Your task to perform on an android device: open app "Facebook Messenger" (install if not already installed) Image 0: 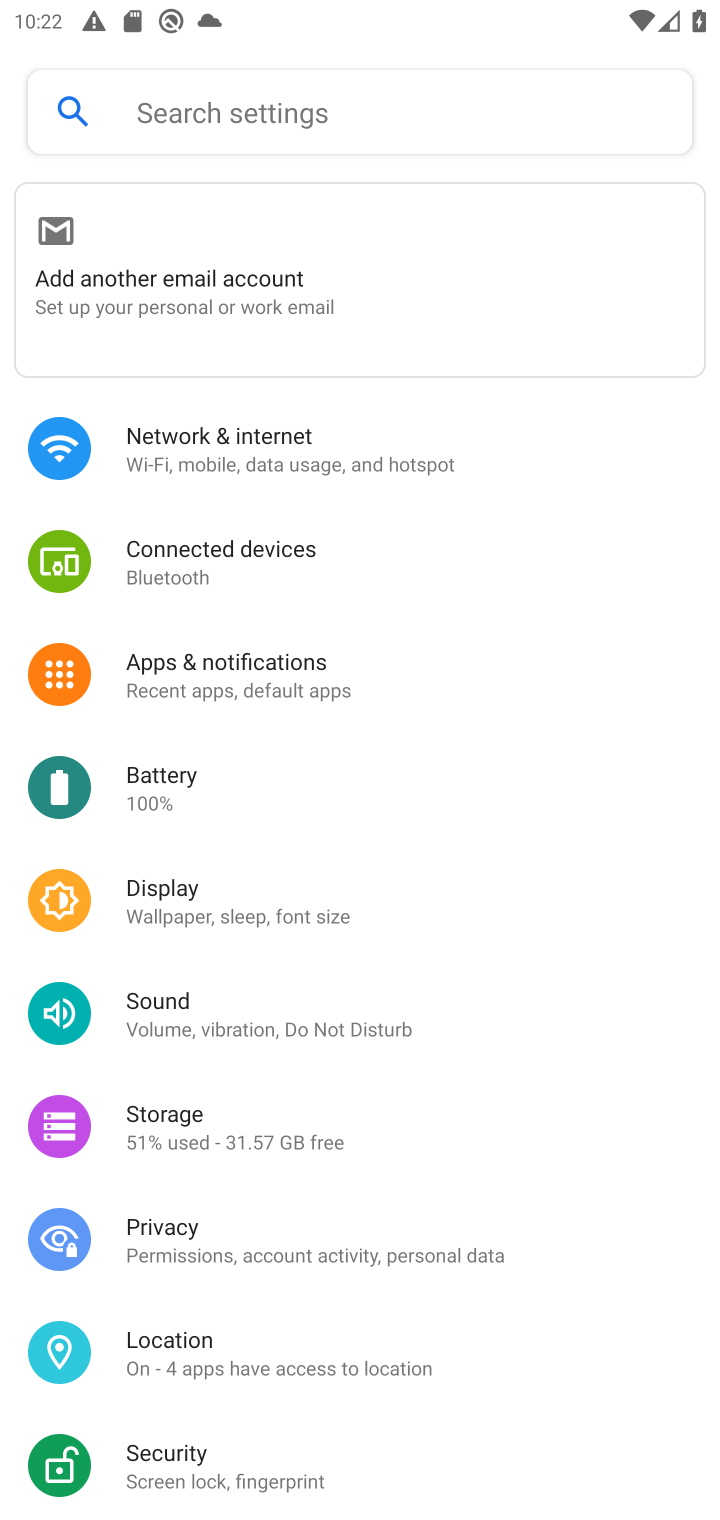
Step 0: press home button
Your task to perform on an android device: open app "Facebook Messenger" (install if not already installed) Image 1: 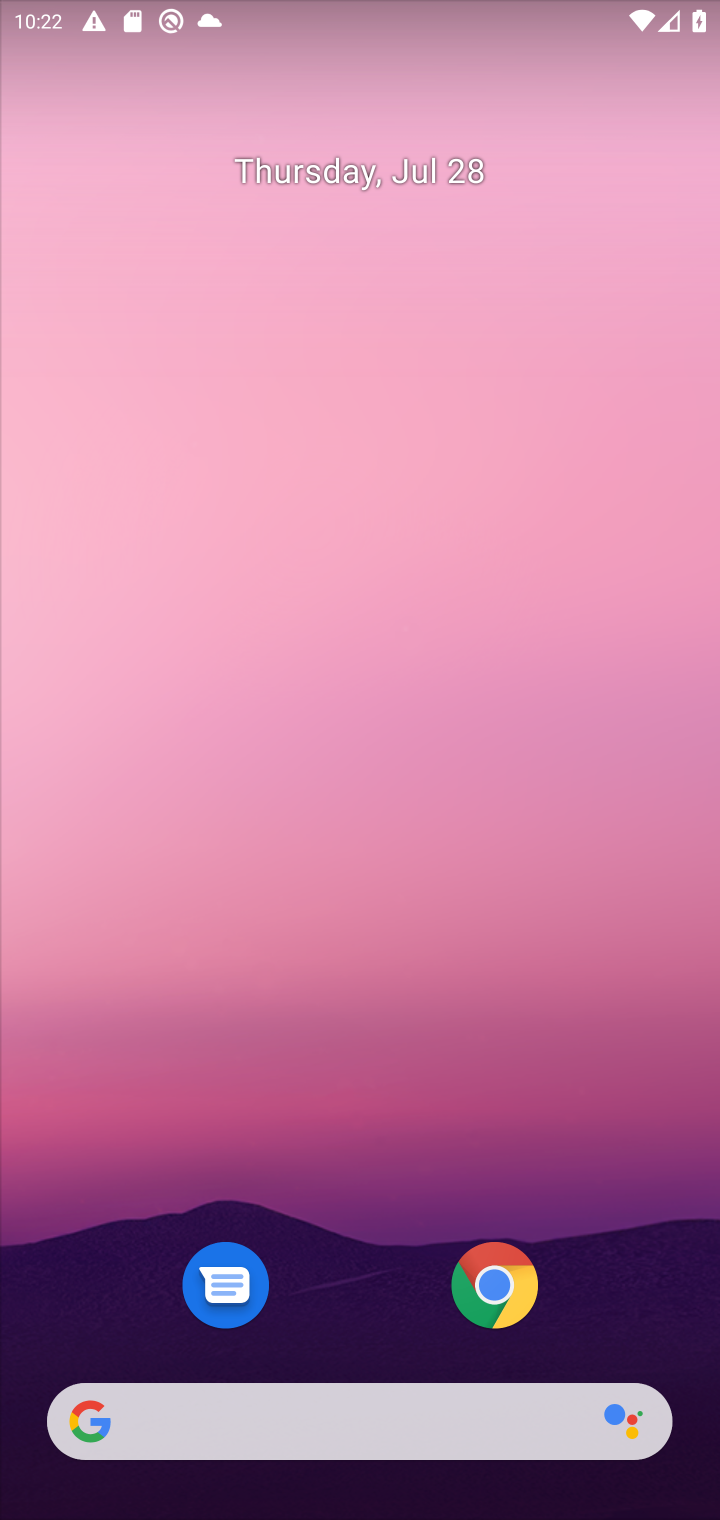
Step 1: drag from (322, 1111) to (169, 50)
Your task to perform on an android device: open app "Facebook Messenger" (install if not already installed) Image 2: 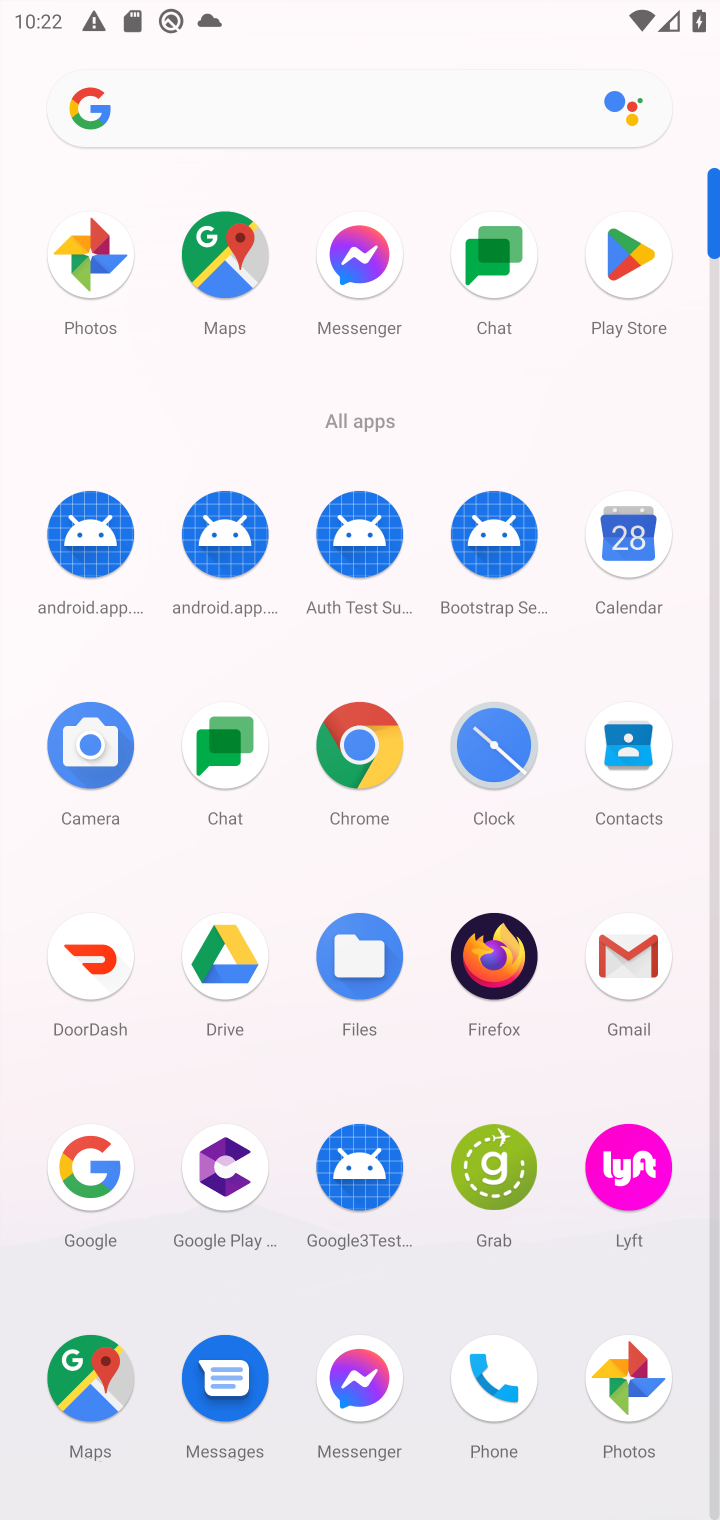
Step 2: click (626, 246)
Your task to perform on an android device: open app "Facebook Messenger" (install if not already installed) Image 3: 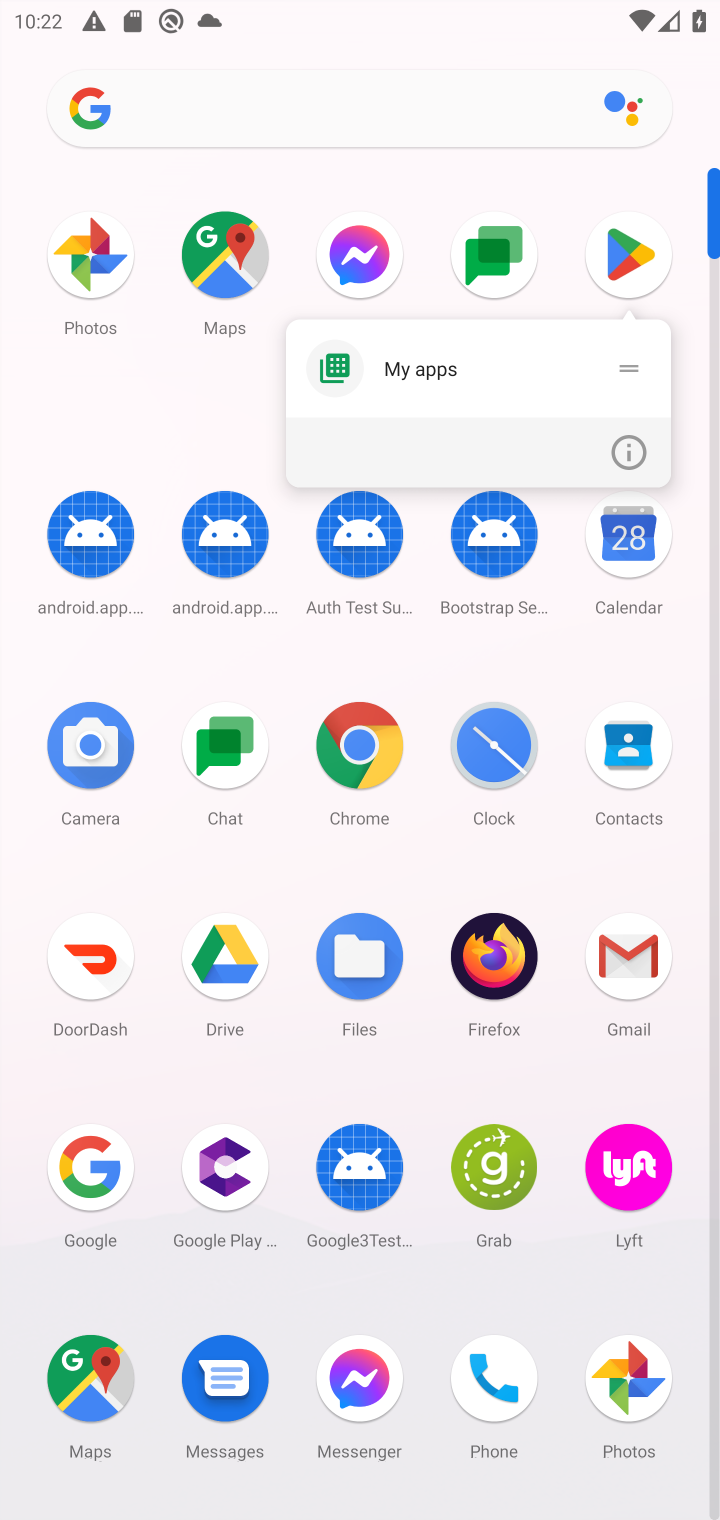
Step 3: click (646, 258)
Your task to perform on an android device: open app "Facebook Messenger" (install if not already installed) Image 4: 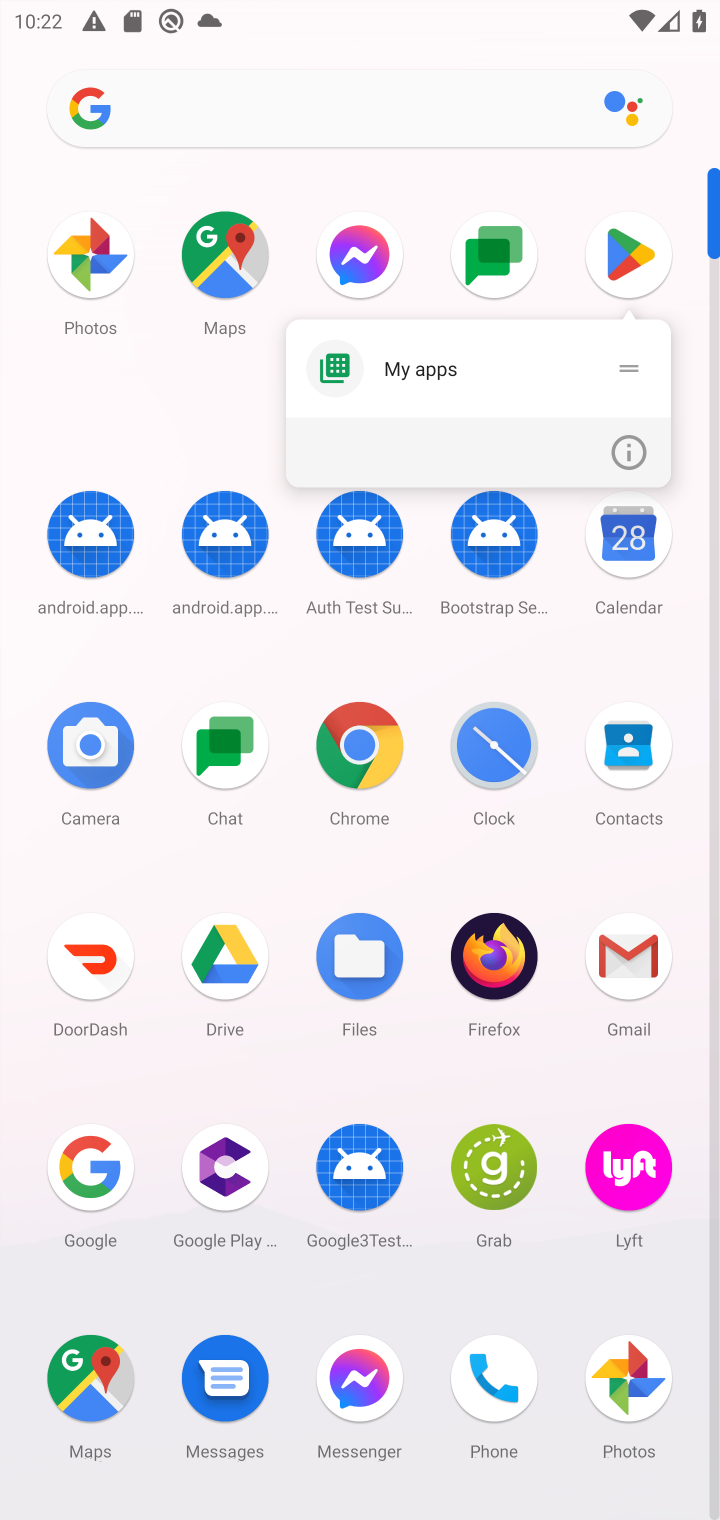
Step 4: click (192, 426)
Your task to perform on an android device: open app "Facebook Messenger" (install if not already installed) Image 5: 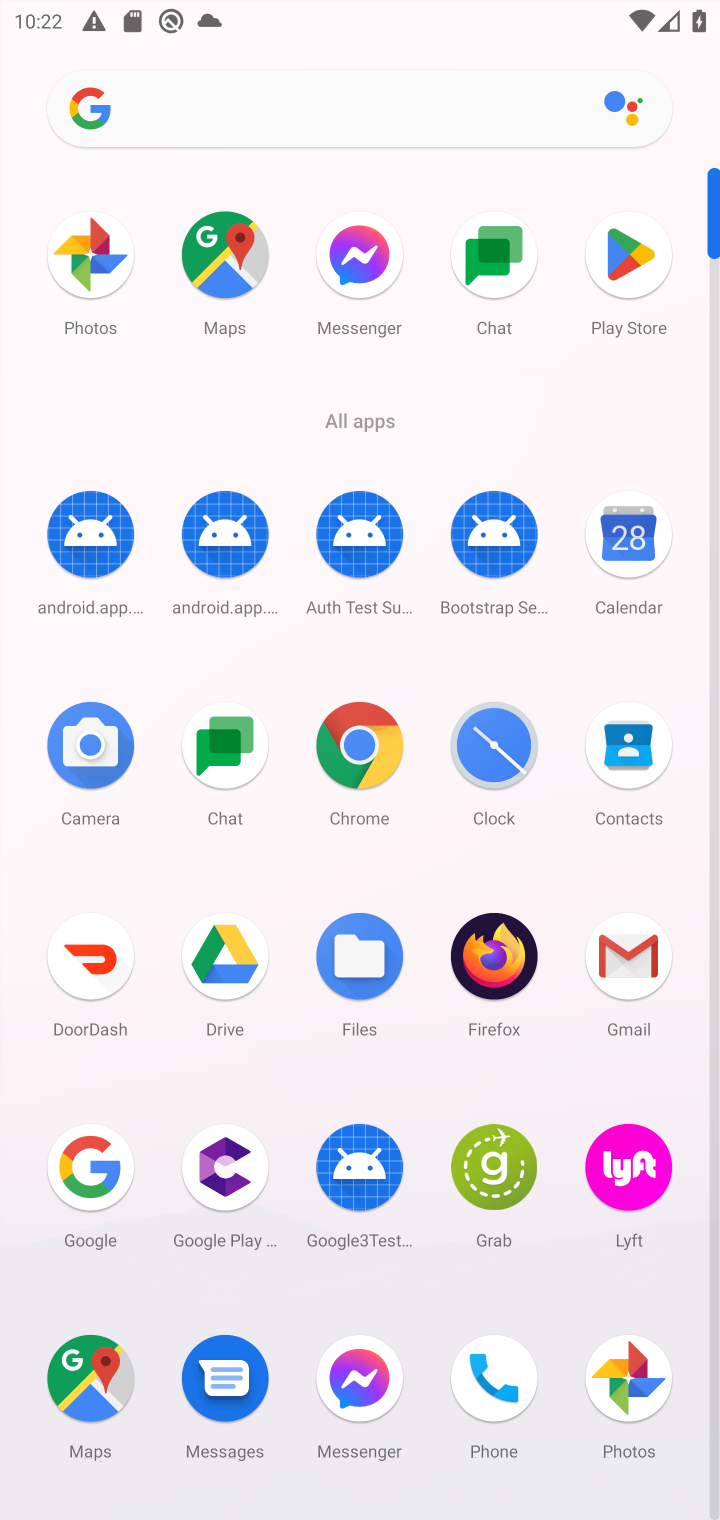
Step 5: click (630, 254)
Your task to perform on an android device: open app "Facebook Messenger" (install if not already installed) Image 6: 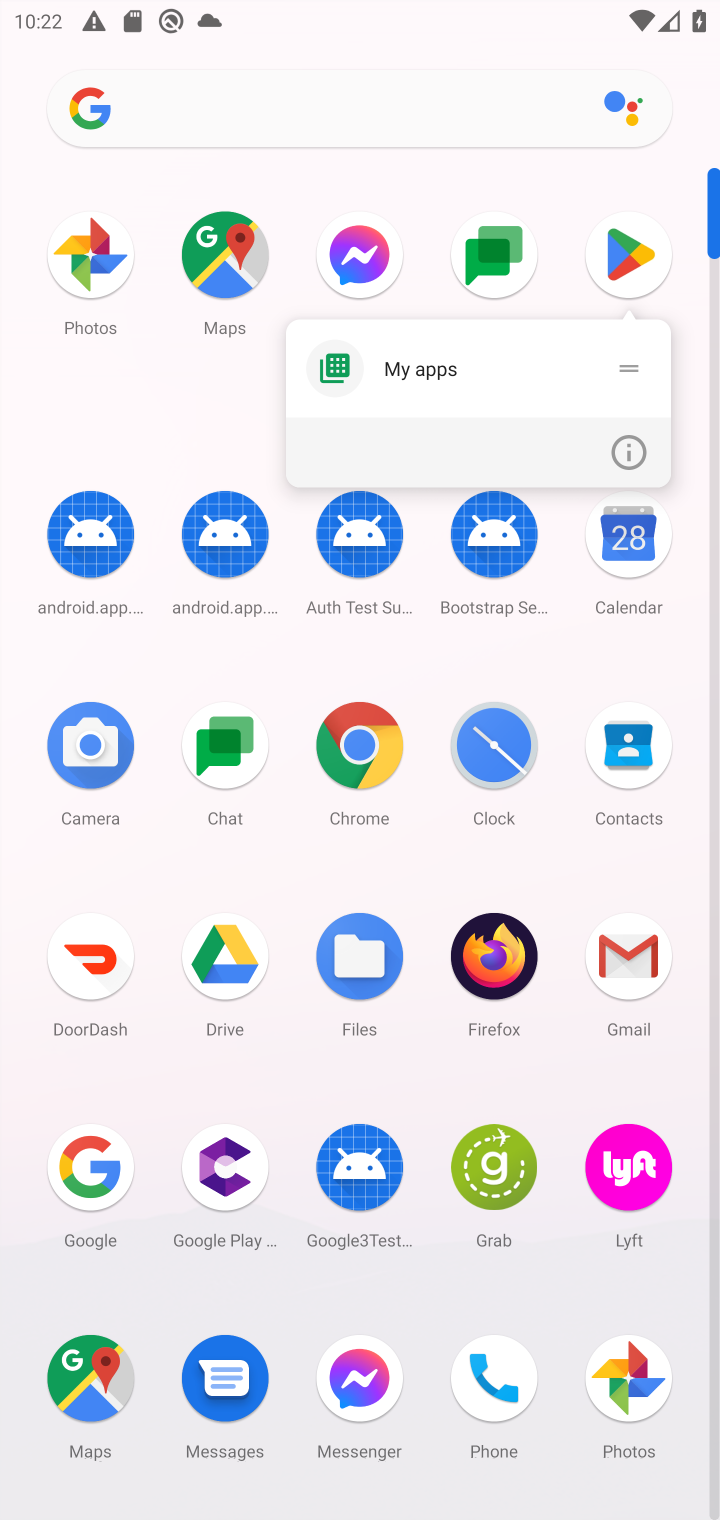
Step 6: click (245, 395)
Your task to perform on an android device: open app "Facebook Messenger" (install if not already installed) Image 7: 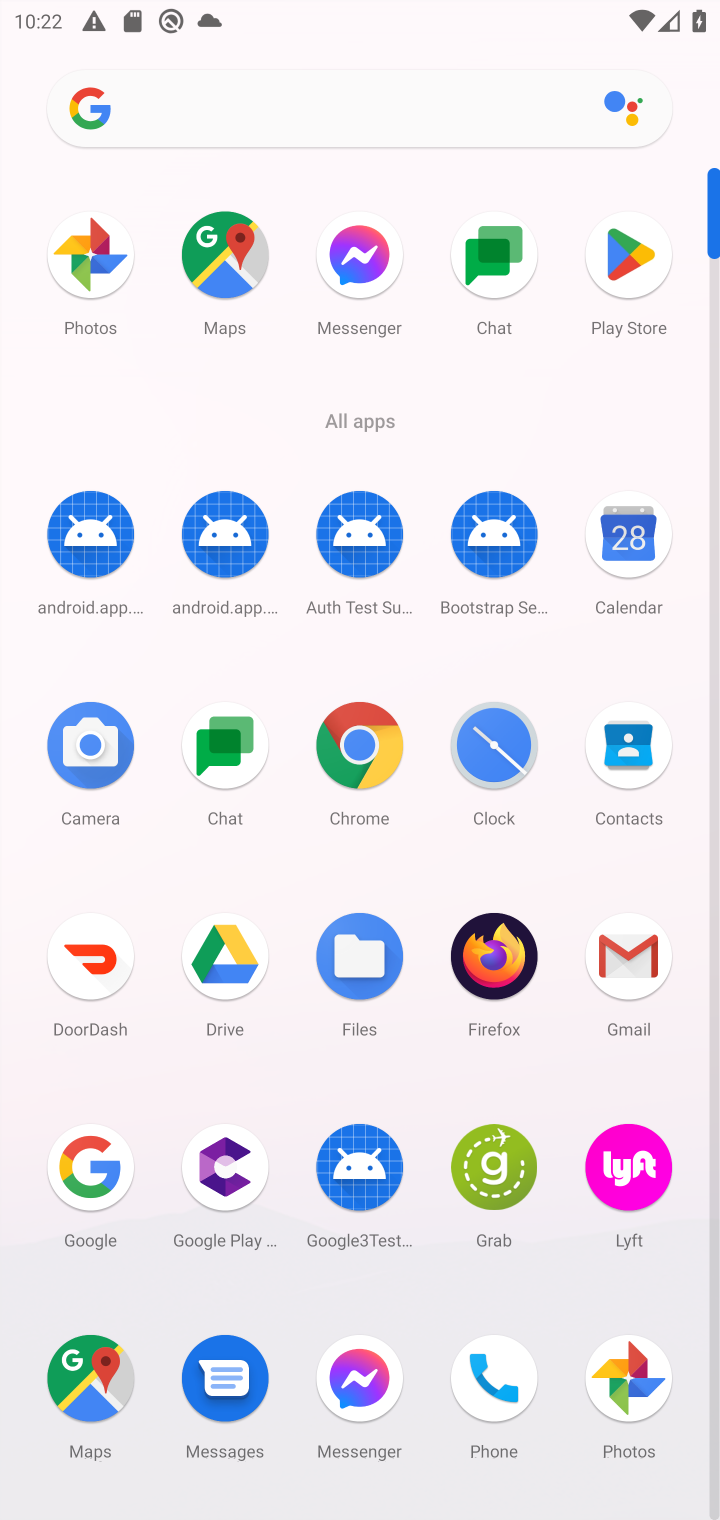
Step 7: click (625, 270)
Your task to perform on an android device: open app "Facebook Messenger" (install if not already installed) Image 8: 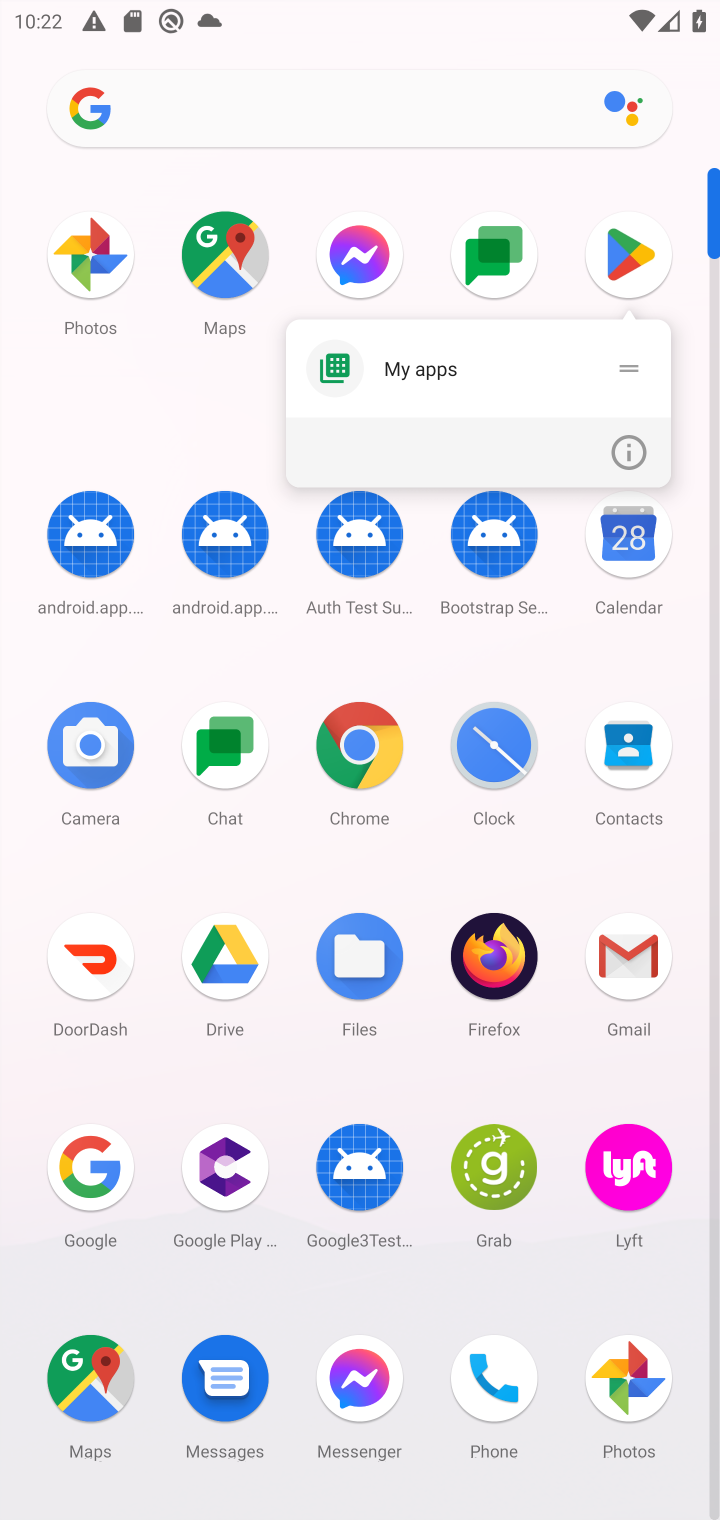
Step 8: click (631, 263)
Your task to perform on an android device: open app "Facebook Messenger" (install if not already installed) Image 9: 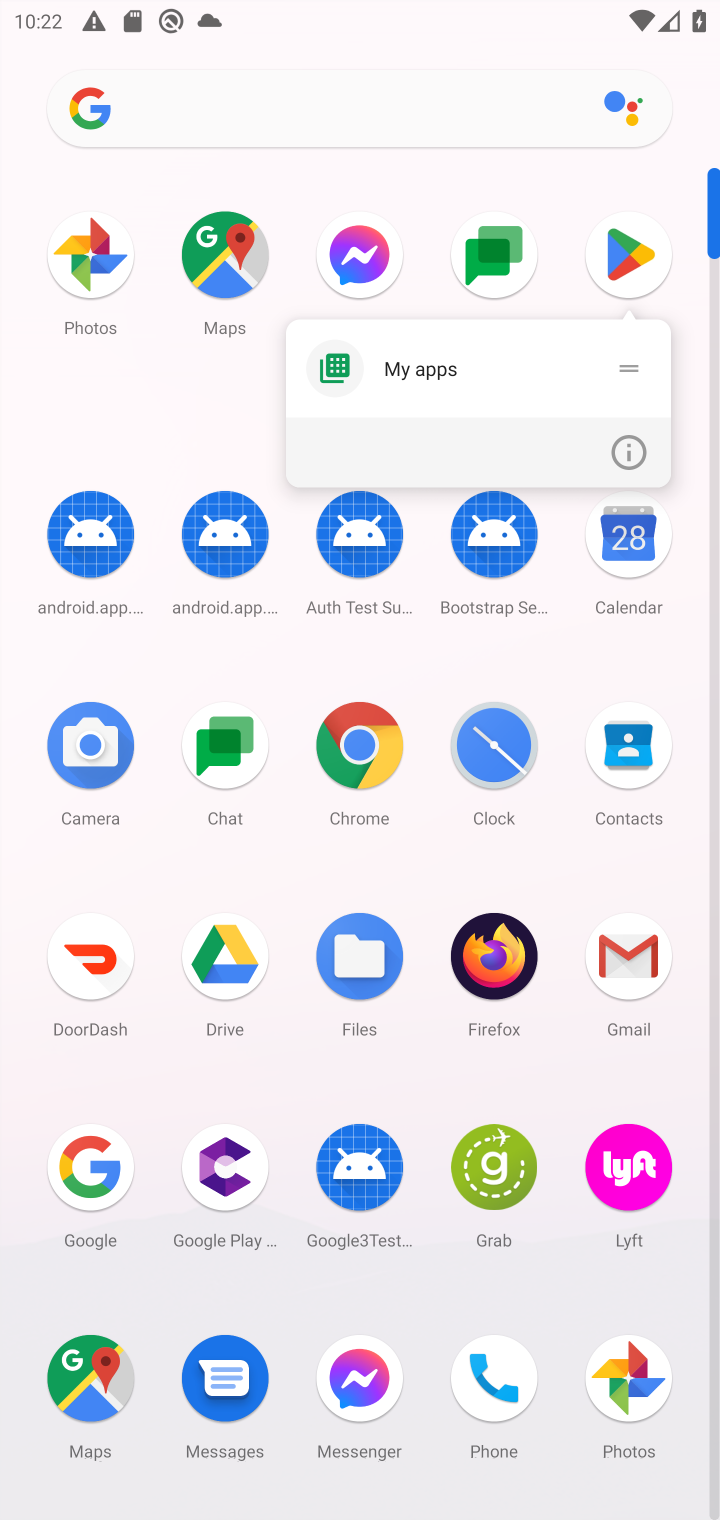
Step 9: click (534, 811)
Your task to perform on an android device: open app "Facebook Messenger" (install if not already installed) Image 10: 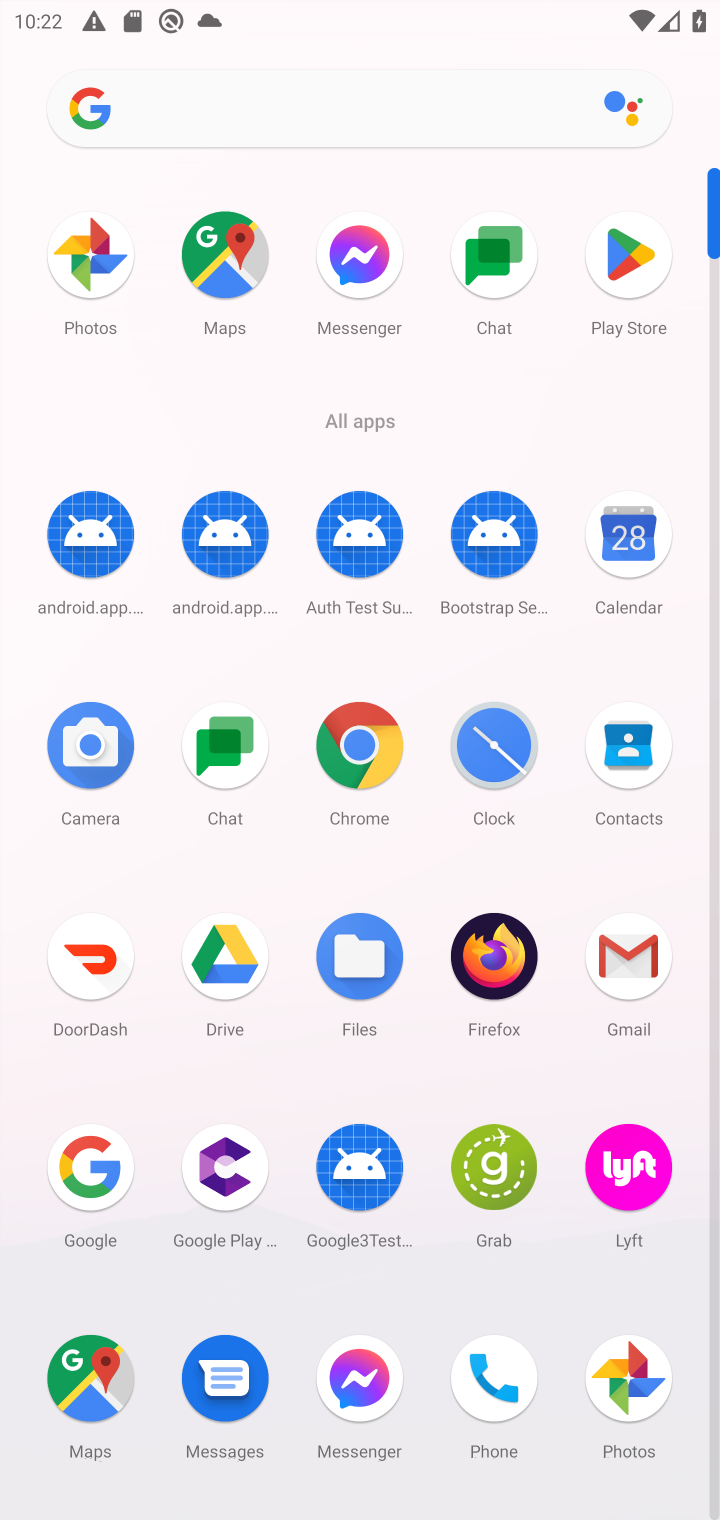
Step 10: drag from (553, 864) to (449, 230)
Your task to perform on an android device: open app "Facebook Messenger" (install if not already installed) Image 11: 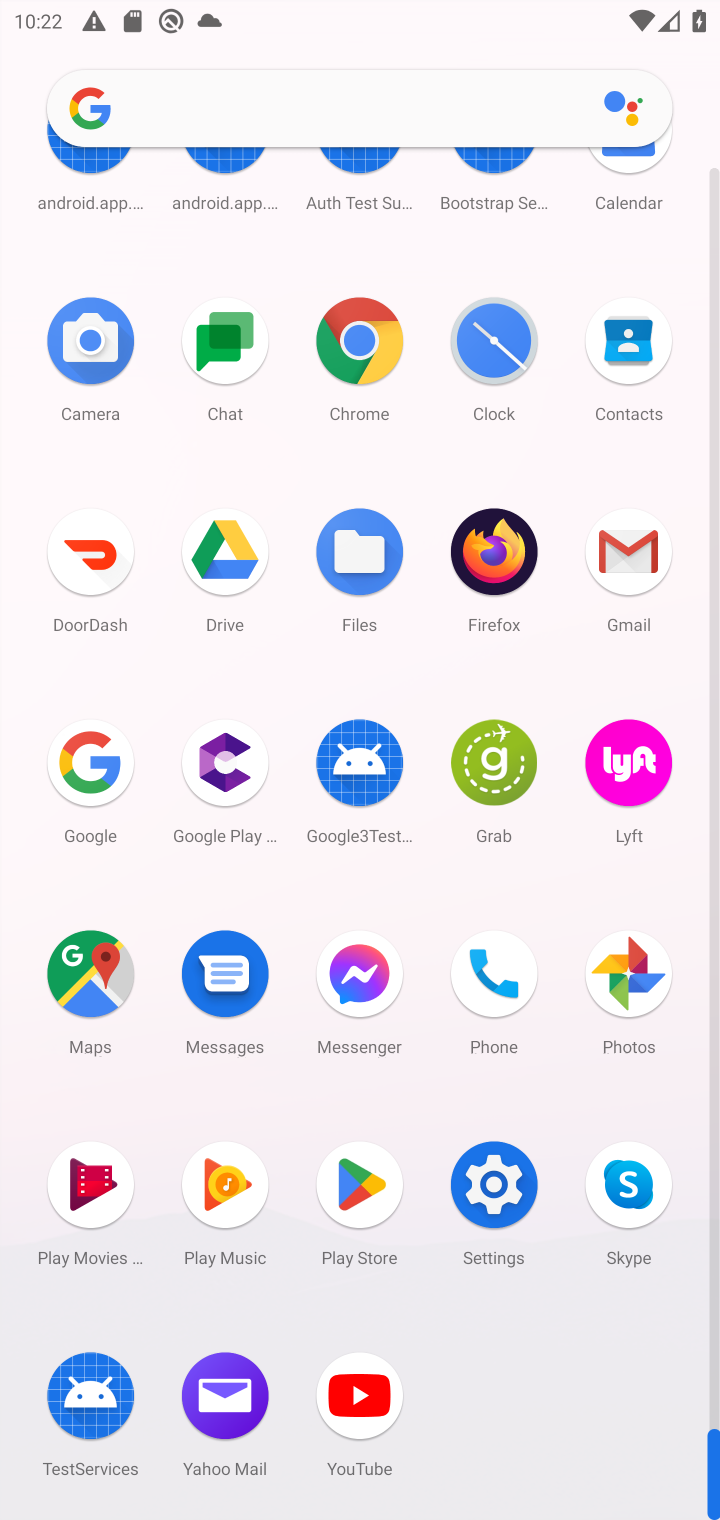
Step 11: click (357, 1190)
Your task to perform on an android device: open app "Facebook Messenger" (install if not already installed) Image 12: 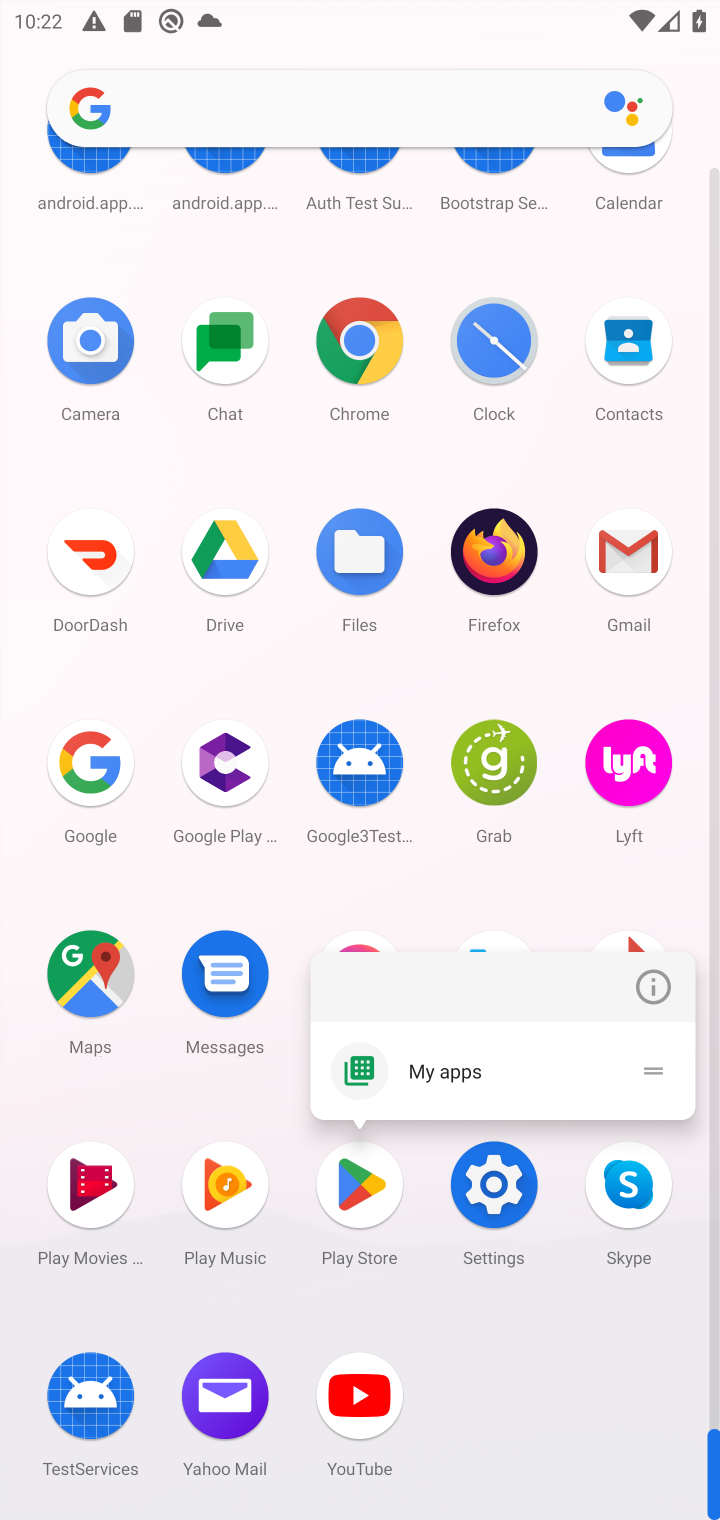
Step 12: click (359, 1185)
Your task to perform on an android device: open app "Facebook Messenger" (install if not already installed) Image 13: 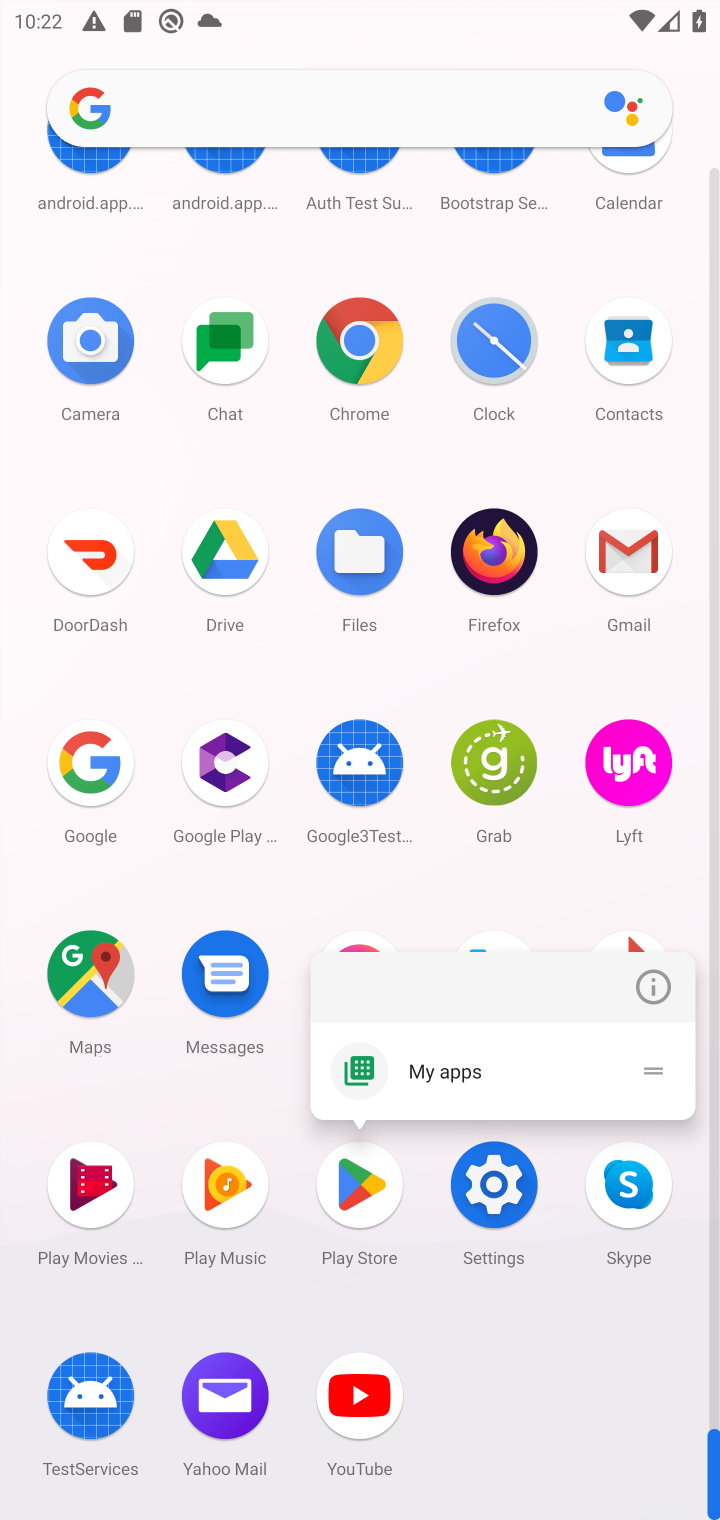
Step 13: click (481, 1453)
Your task to perform on an android device: open app "Facebook Messenger" (install if not already installed) Image 14: 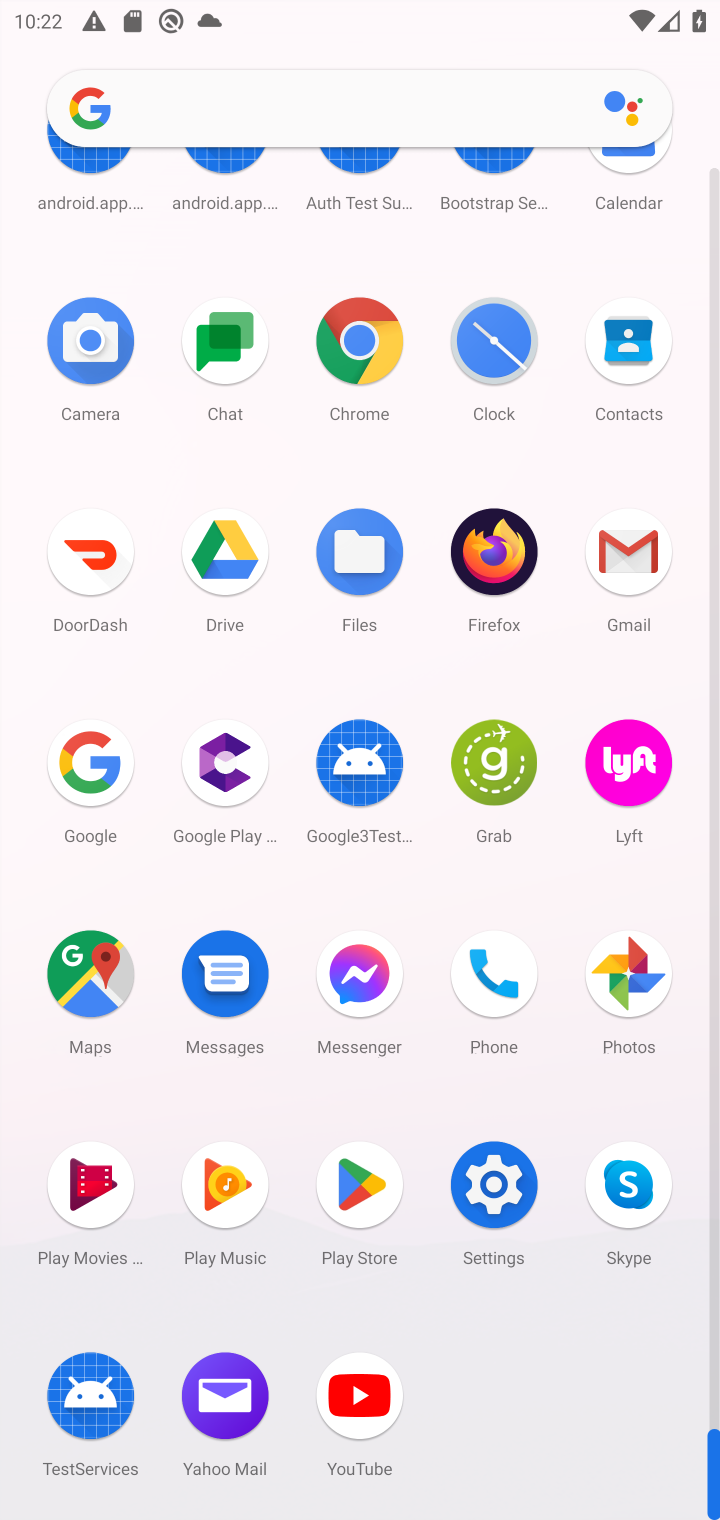
Step 14: click (355, 1178)
Your task to perform on an android device: open app "Facebook Messenger" (install if not already installed) Image 15: 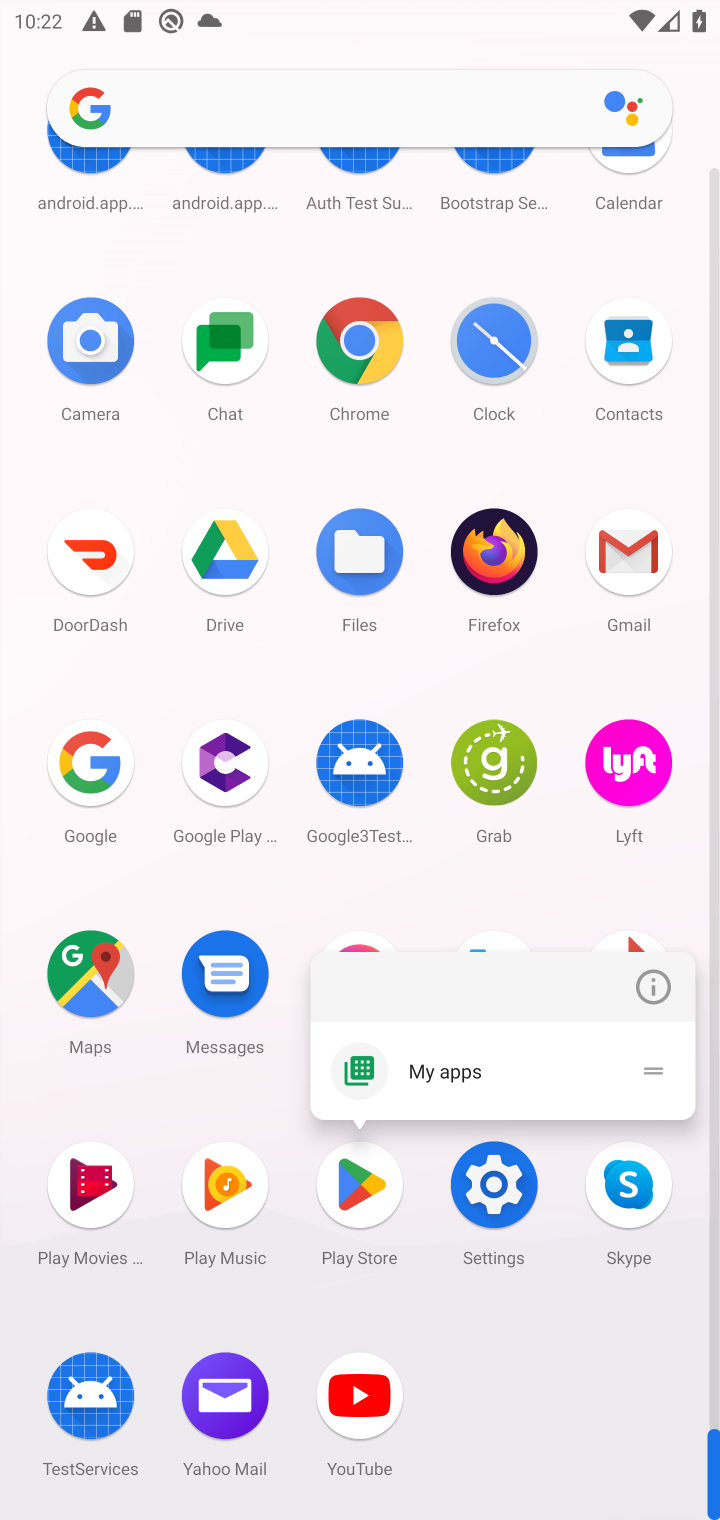
Step 15: click (355, 1178)
Your task to perform on an android device: open app "Facebook Messenger" (install if not already installed) Image 16: 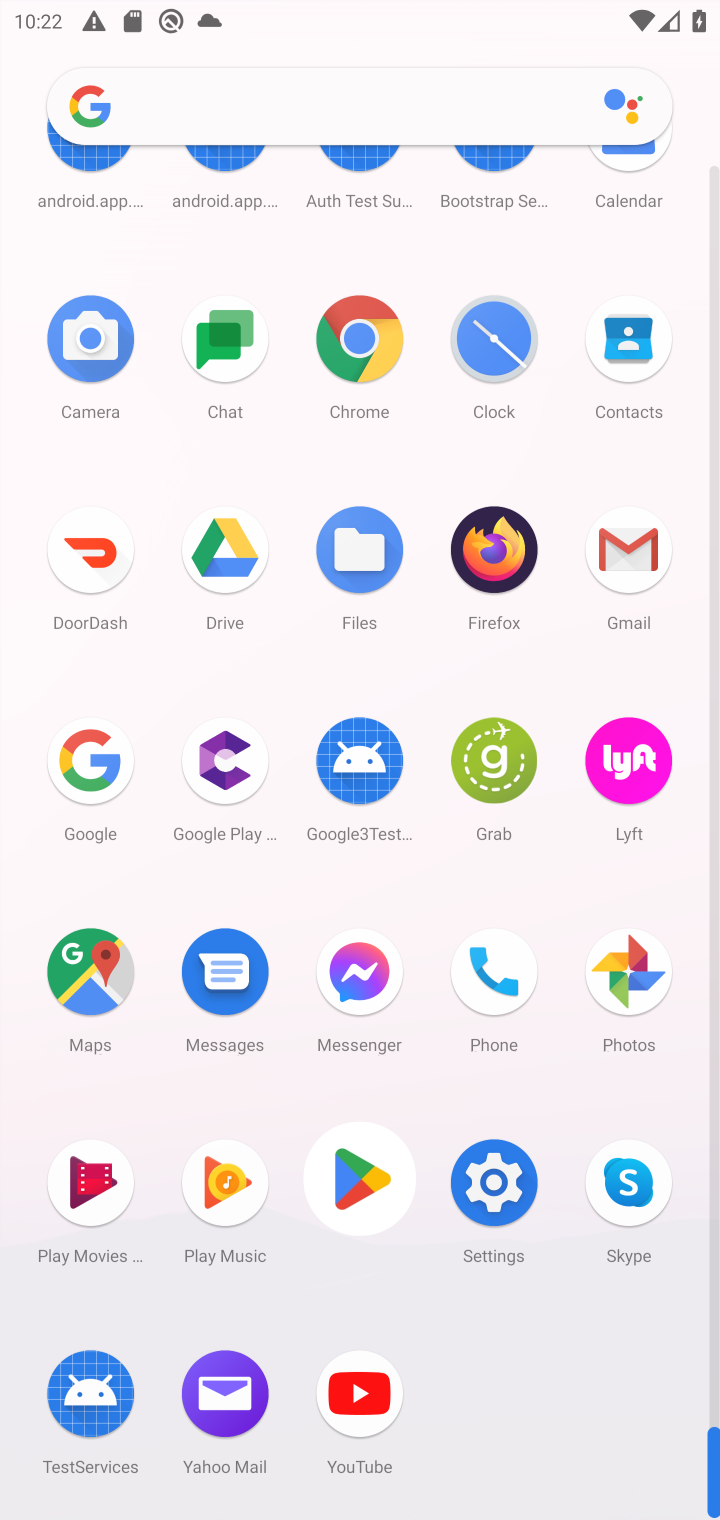
Step 16: click (354, 1172)
Your task to perform on an android device: open app "Facebook Messenger" (install if not already installed) Image 17: 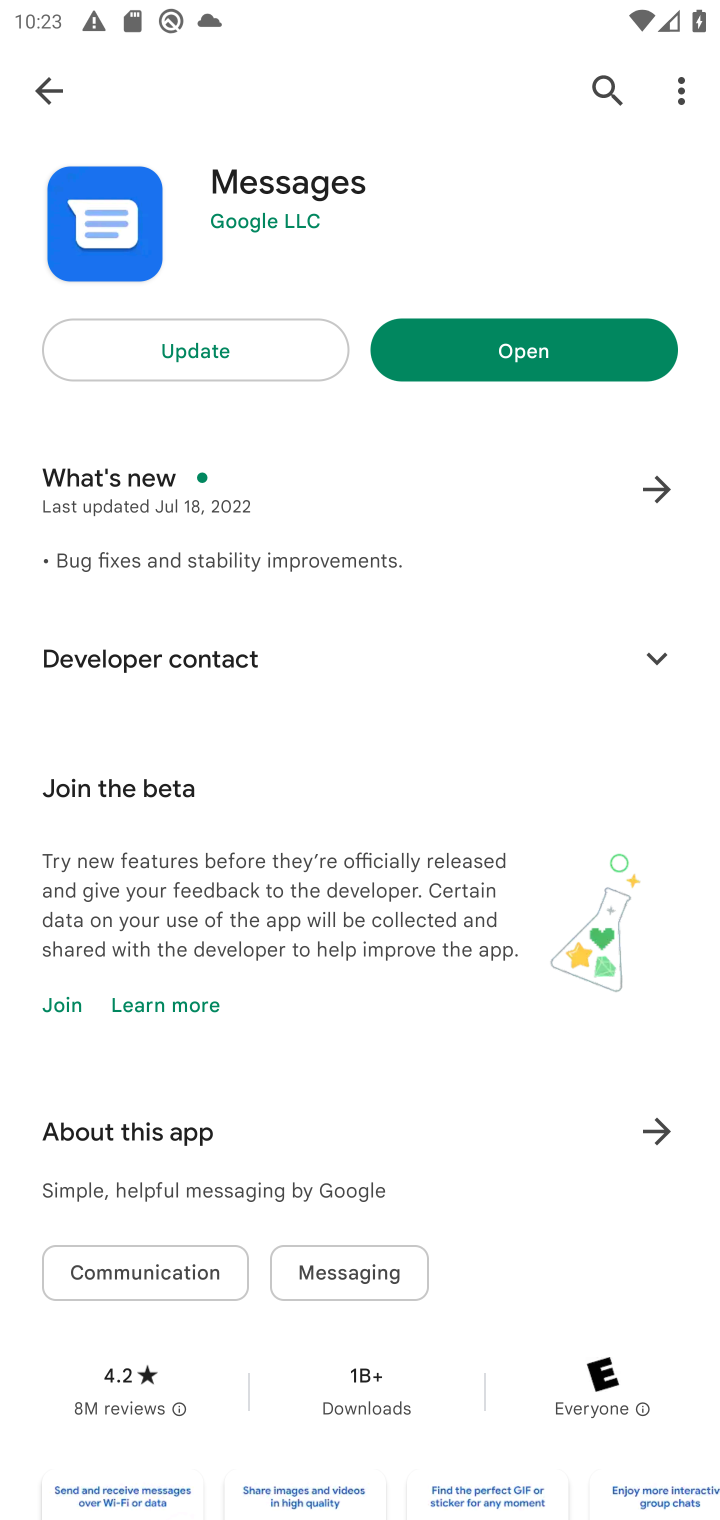
Step 17: click (58, 95)
Your task to perform on an android device: open app "Facebook Messenger" (install if not already installed) Image 18: 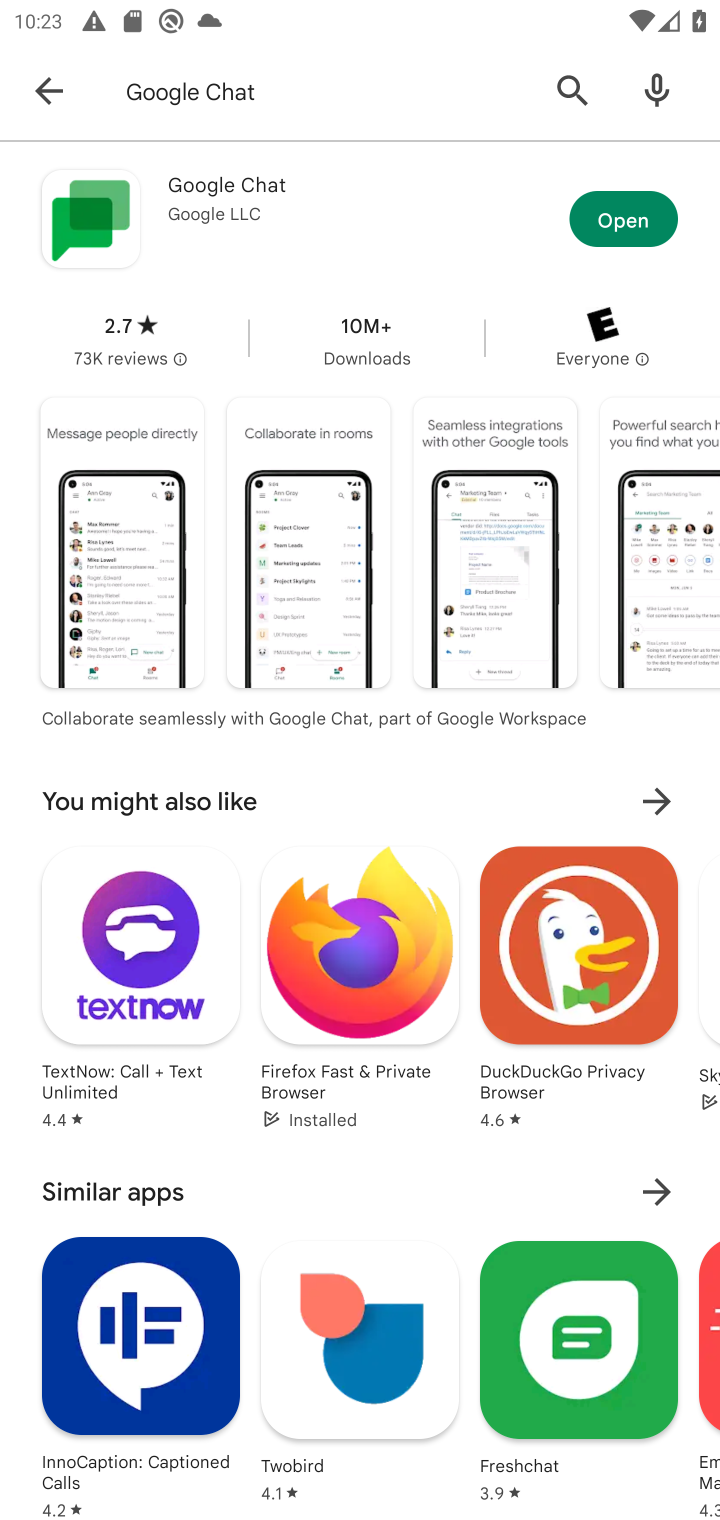
Step 18: click (439, 115)
Your task to perform on an android device: open app "Facebook Messenger" (install if not already installed) Image 19: 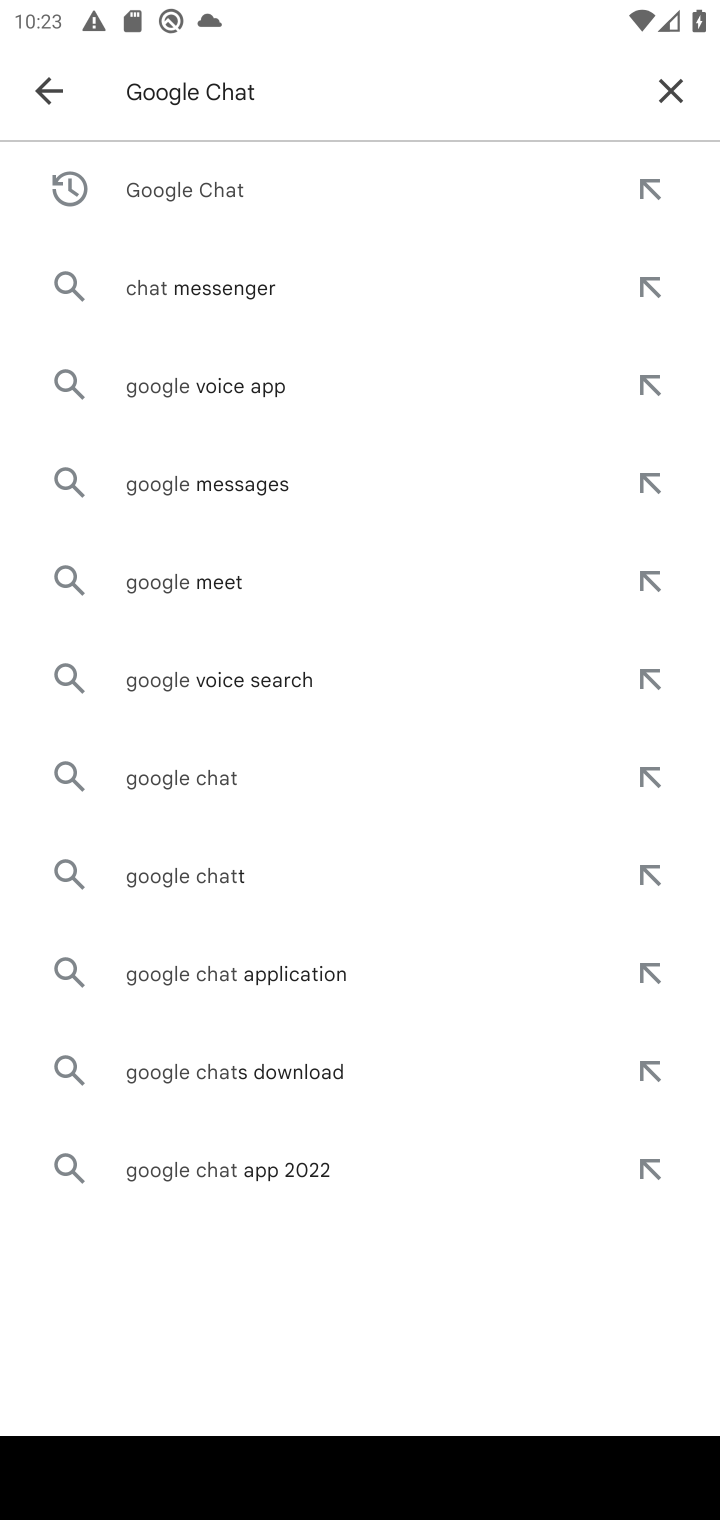
Step 19: click (685, 85)
Your task to perform on an android device: open app "Facebook Messenger" (install if not already installed) Image 20: 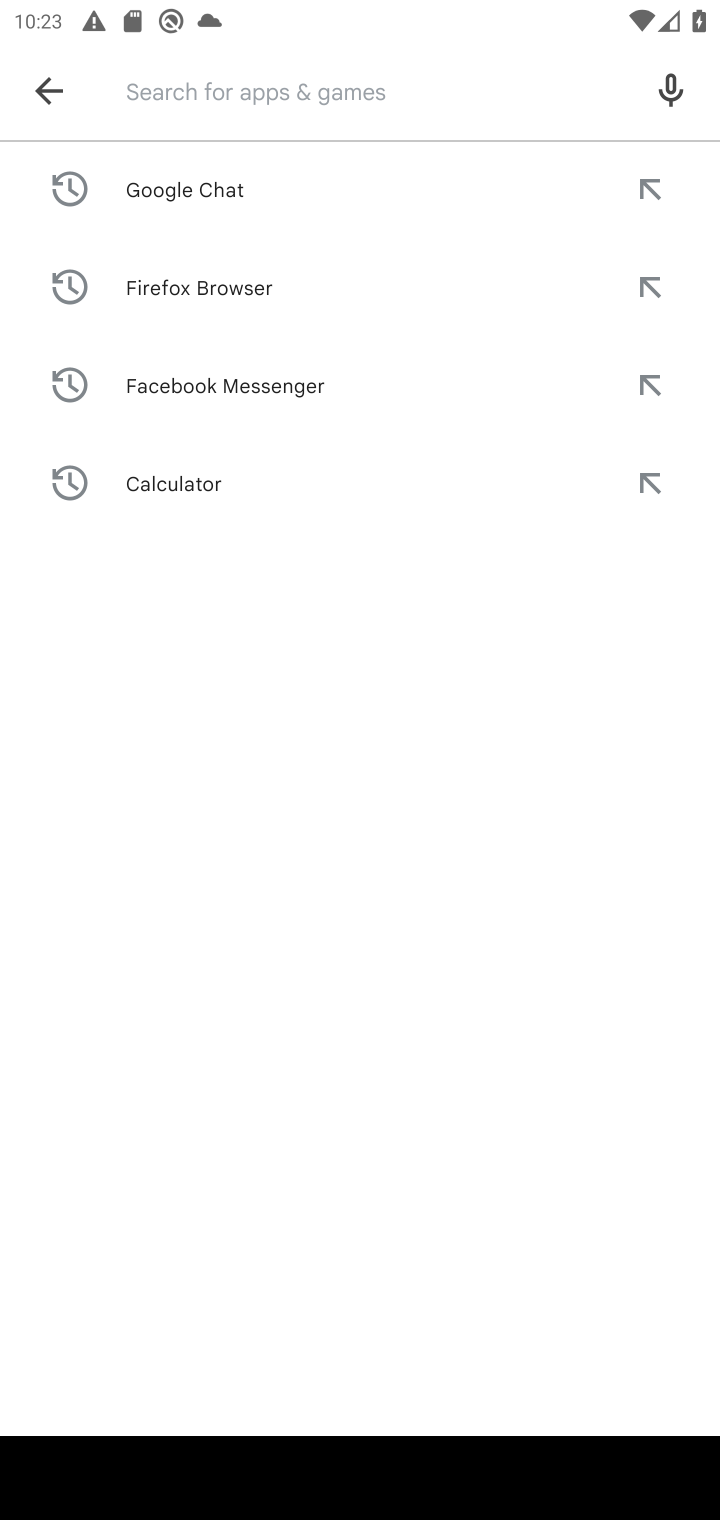
Step 20: click (315, 386)
Your task to perform on an android device: open app "Facebook Messenger" (install if not already installed) Image 21: 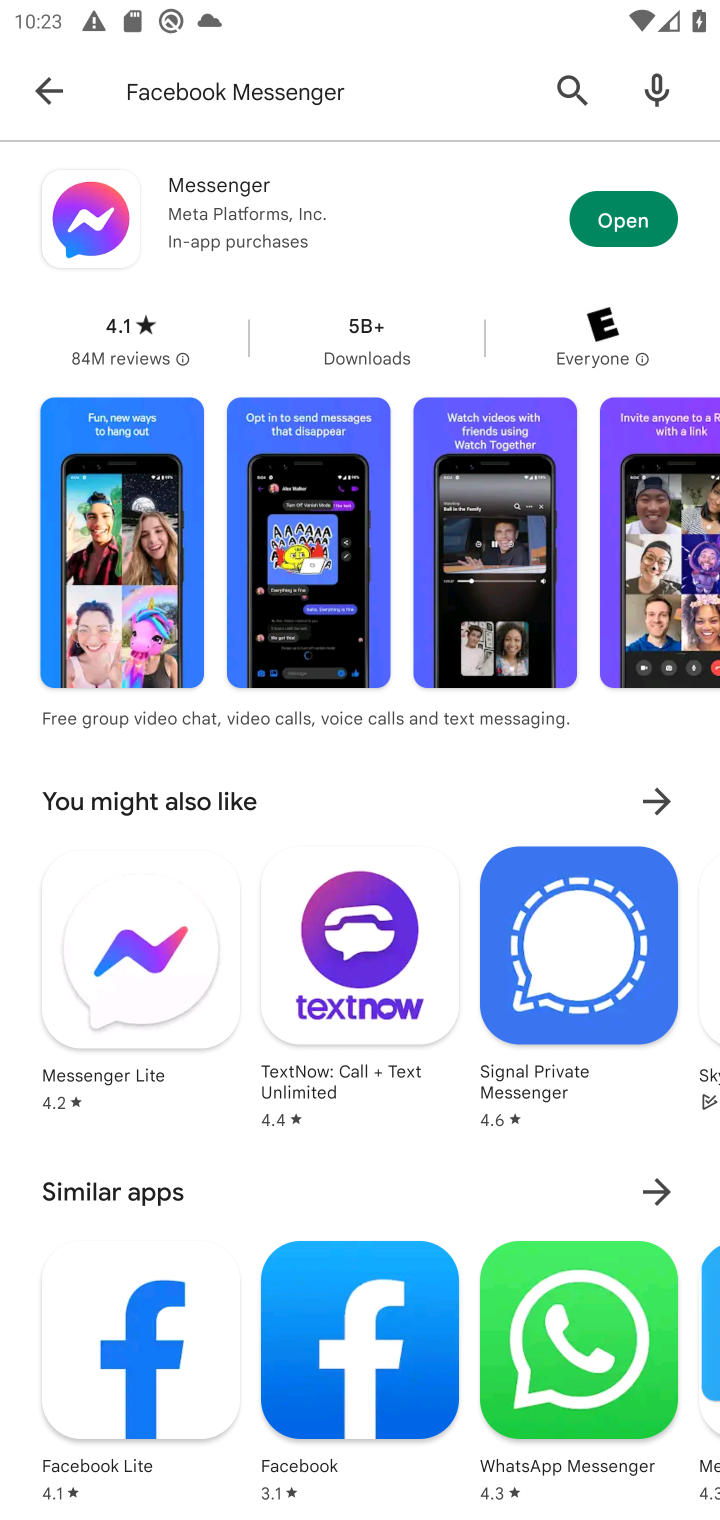
Step 21: click (654, 221)
Your task to perform on an android device: open app "Facebook Messenger" (install if not already installed) Image 22: 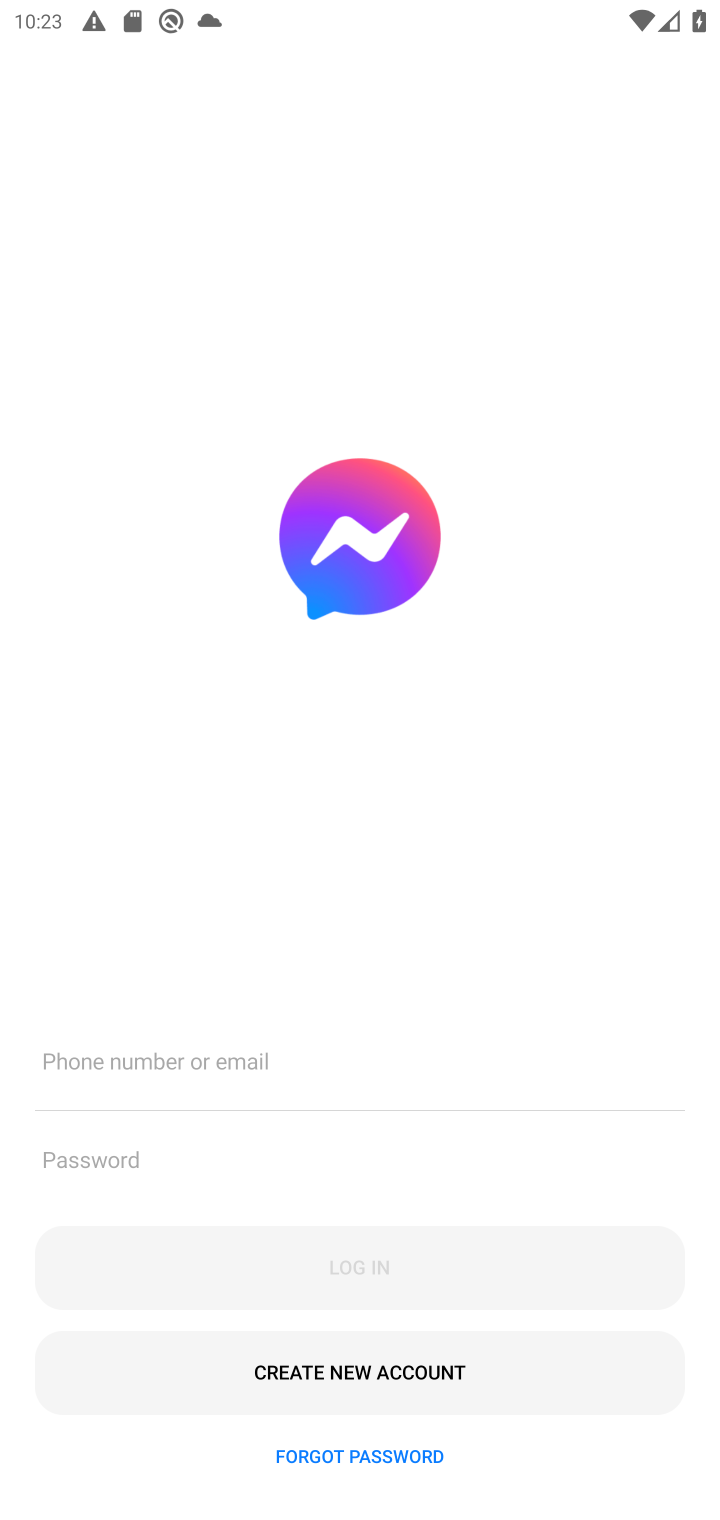
Step 22: task complete